Your task to perform on an android device: Go to Android settings Image 0: 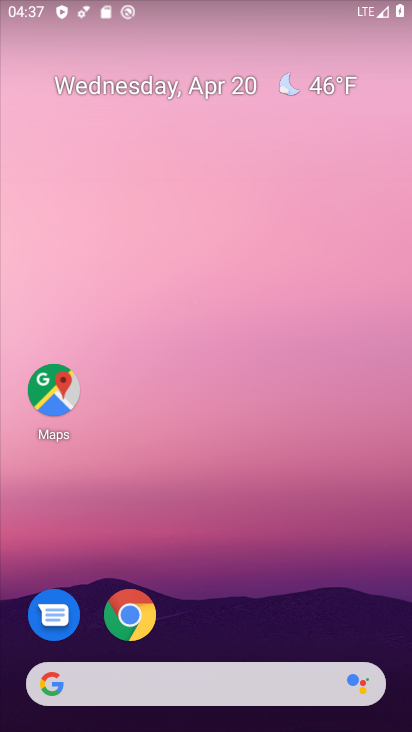
Step 0: drag from (240, 524) to (302, 95)
Your task to perform on an android device: Go to Android settings Image 1: 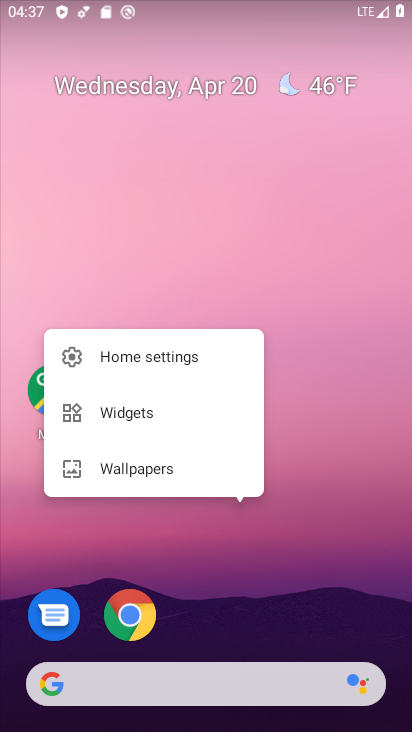
Step 1: click (318, 442)
Your task to perform on an android device: Go to Android settings Image 2: 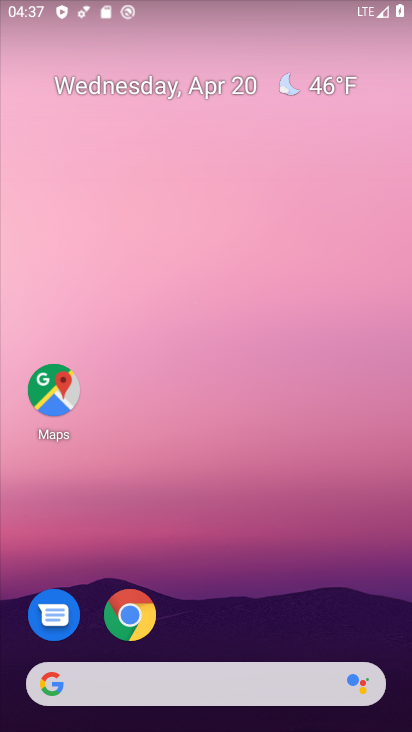
Step 2: drag from (258, 572) to (290, 70)
Your task to perform on an android device: Go to Android settings Image 3: 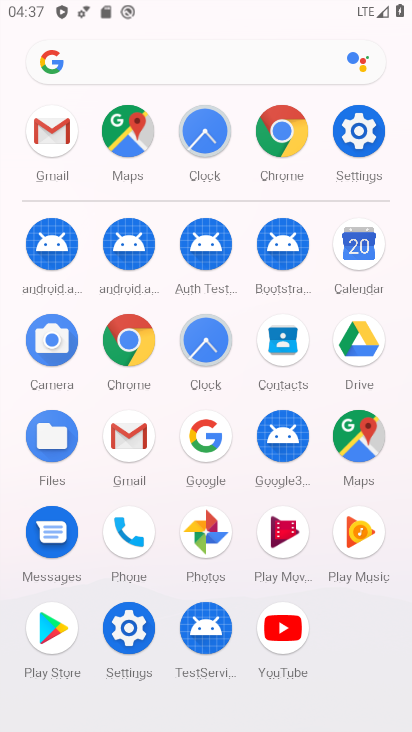
Step 3: click (365, 124)
Your task to perform on an android device: Go to Android settings Image 4: 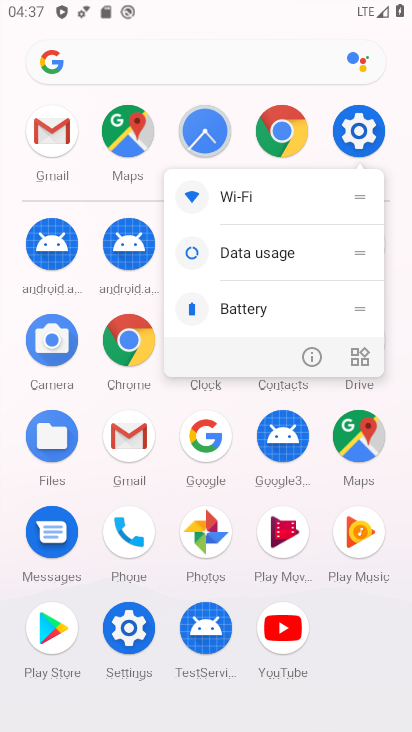
Step 4: click (359, 133)
Your task to perform on an android device: Go to Android settings Image 5: 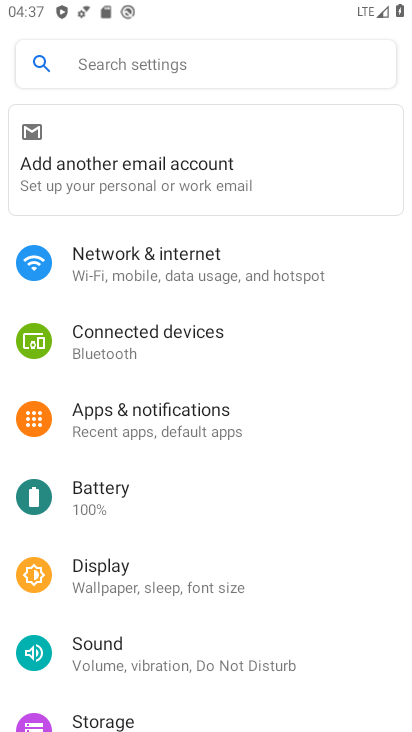
Step 5: drag from (151, 687) to (250, 133)
Your task to perform on an android device: Go to Android settings Image 6: 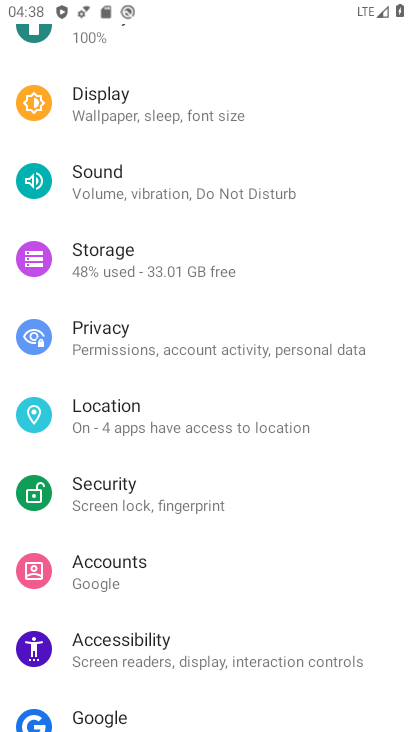
Step 6: drag from (206, 646) to (315, 55)
Your task to perform on an android device: Go to Android settings Image 7: 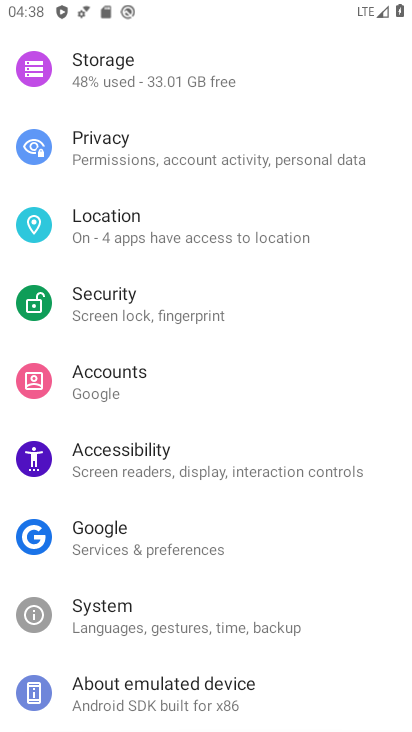
Step 7: drag from (182, 580) to (282, 89)
Your task to perform on an android device: Go to Android settings Image 8: 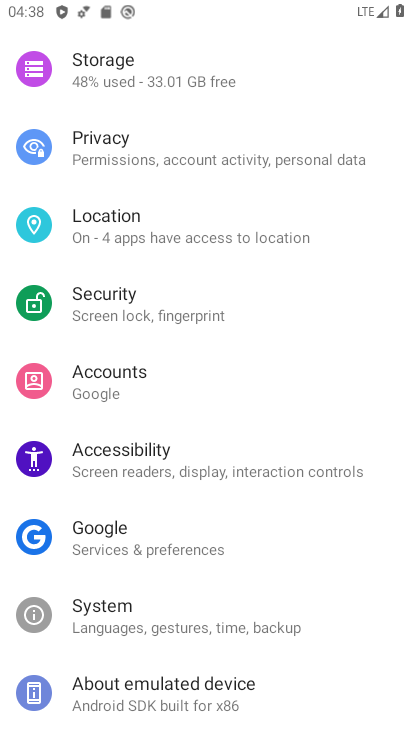
Step 8: click (138, 690)
Your task to perform on an android device: Go to Android settings Image 9: 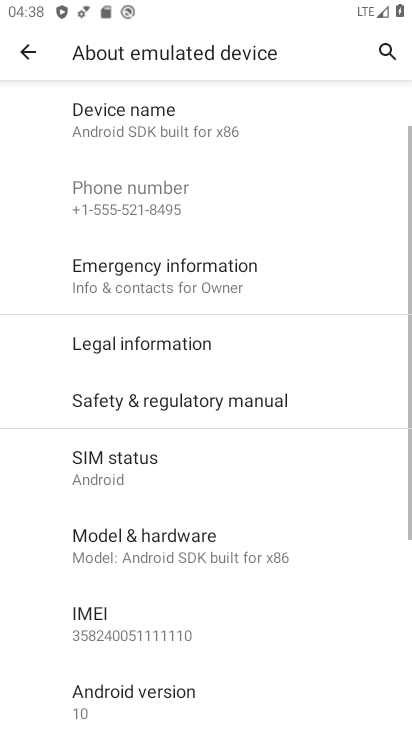
Step 9: click (151, 681)
Your task to perform on an android device: Go to Android settings Image 10: 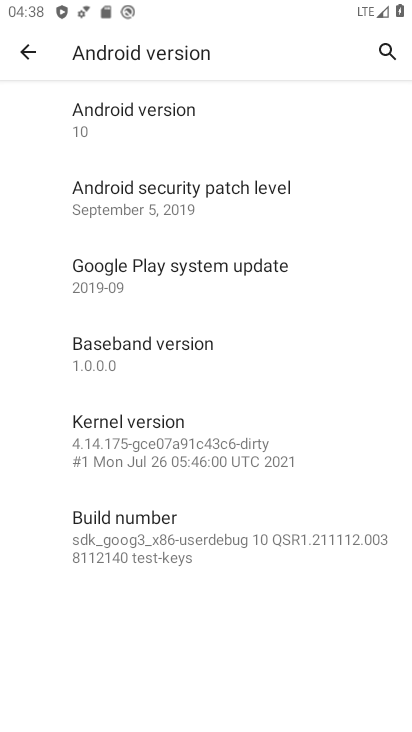
Step 10: task complete